Your task to perform on an android device: Open Google Chrome and open the bookmarks view Image 0: 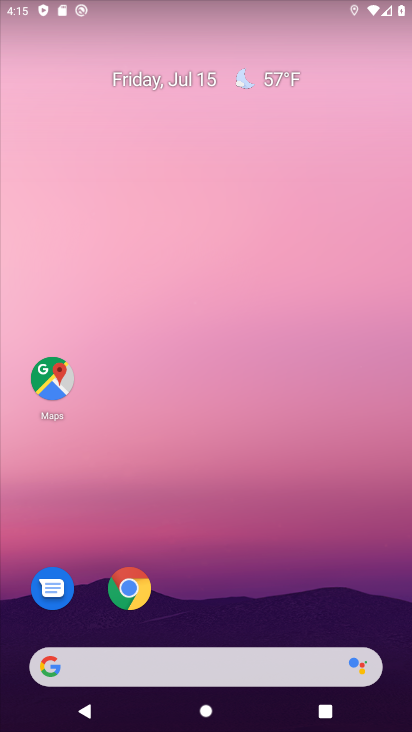
Step 0: click (128, 591)
Your task to perform on an android device: Open Google Chrome and open the bookmarks view Image 1: 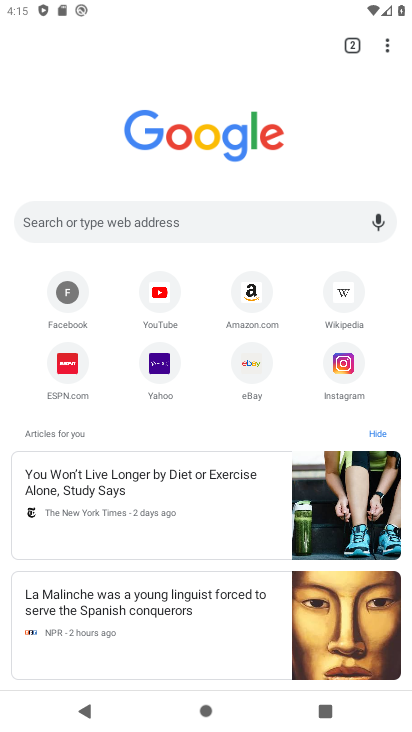
Step 1: click (386, 45)
Your task to perform on an android device: Open Google Chrome and open the bookmarks view Image 2: 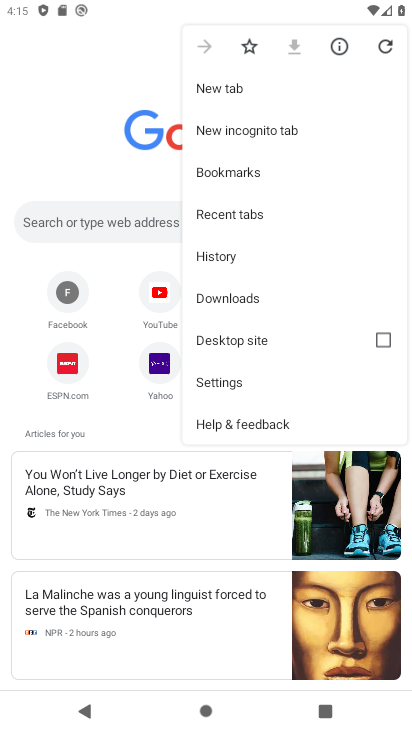
Step 2: click (248, 171)
Your task to perform on an android device: Open Google Chrome and open the bookmarks view Image 3: 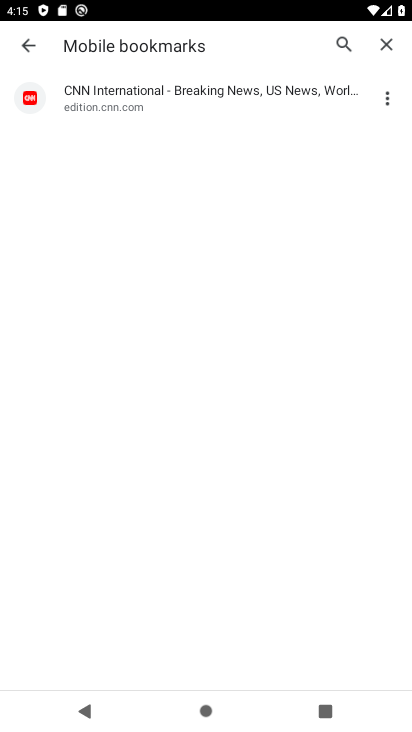
Step 3: task complete